Your task to perform on an android device: View the shopping cart on bestbuy. Search for acer predator on bestbuy, select the first entry, add it to the cart, then select checkout. Image 0: 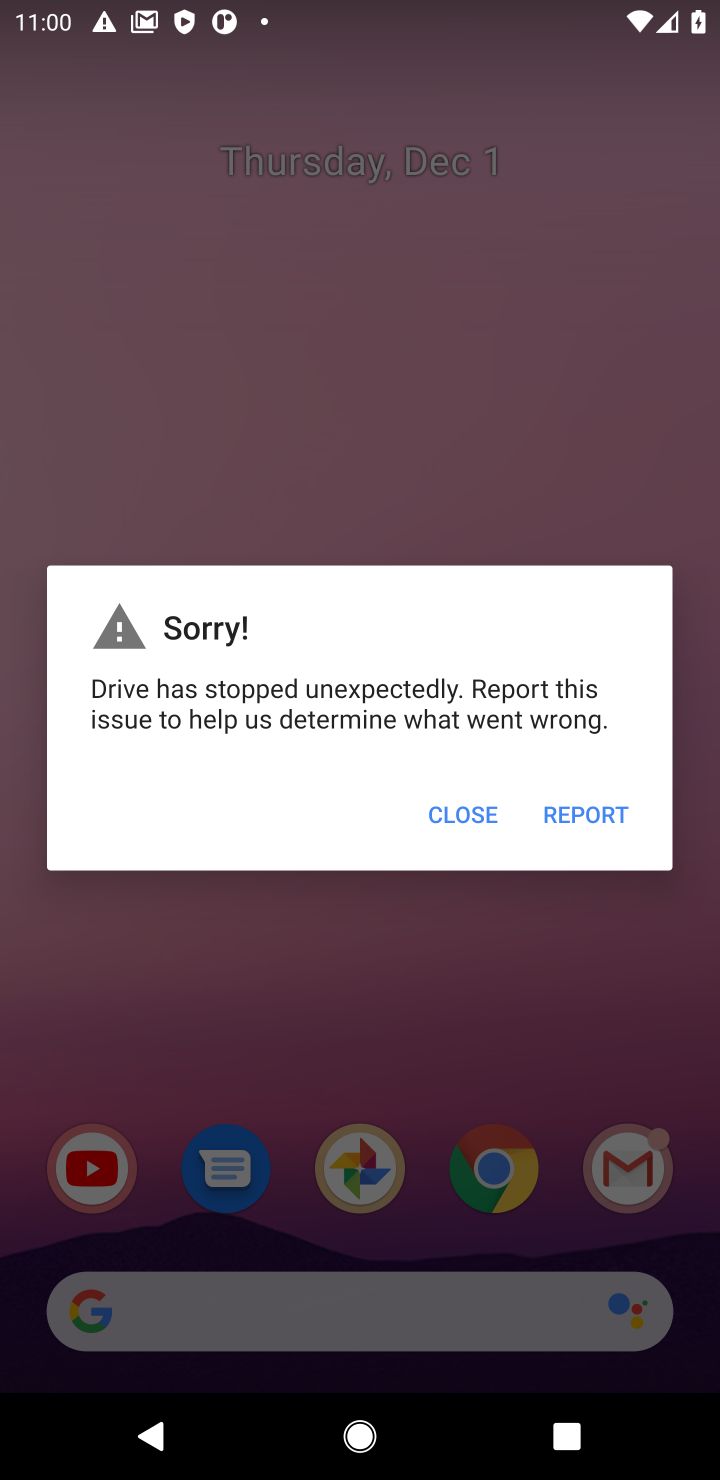
Step 0: press home button
Your task to perform on an android device: View the shopping cart on bestbuy. Search for acer predator on bestbuy, select the first entry, add it to the cart, then select checkout. Image 1: 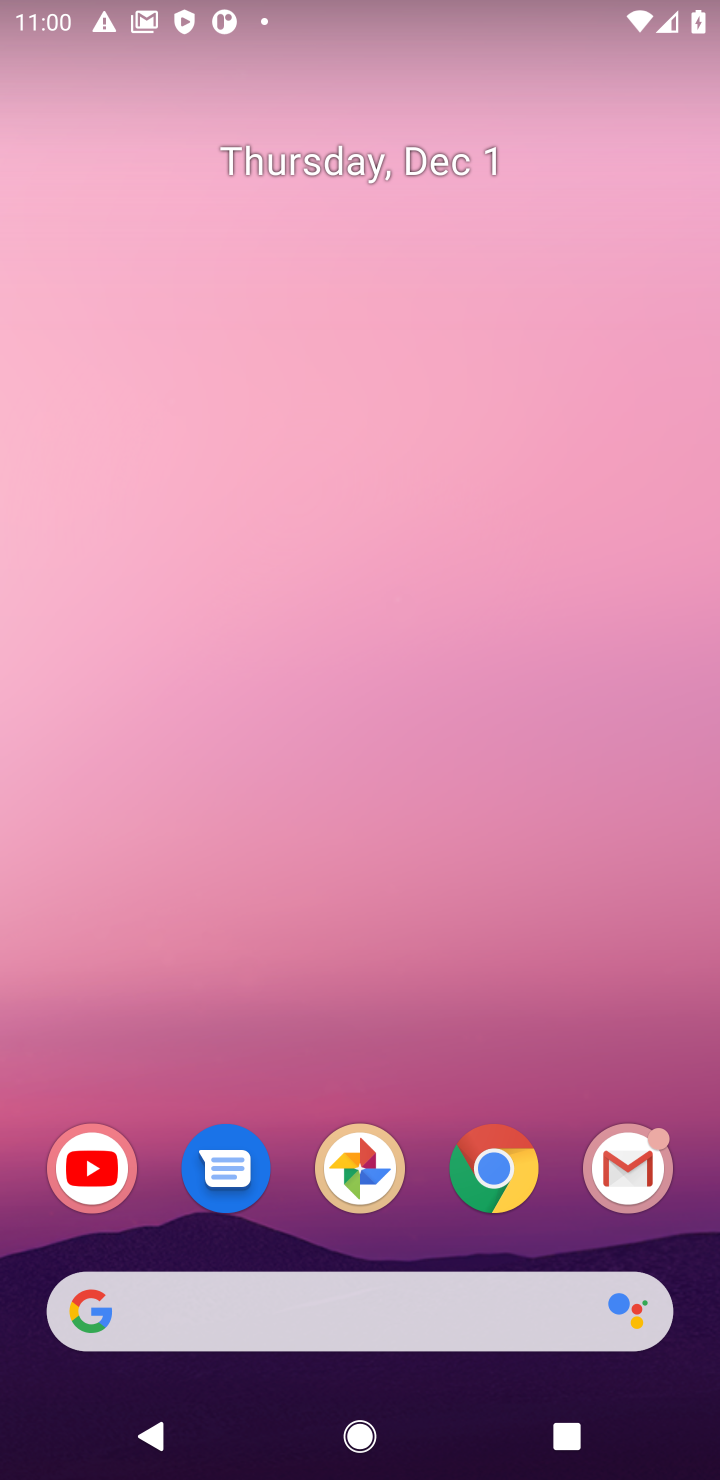
Step 1: click (503, 1186)
Your task to perform on an android device: View the shopping cart on bestbuy. Search for acer predator on bestbuy, select the first entry, add it to the cart, then select checkout. Image 2: 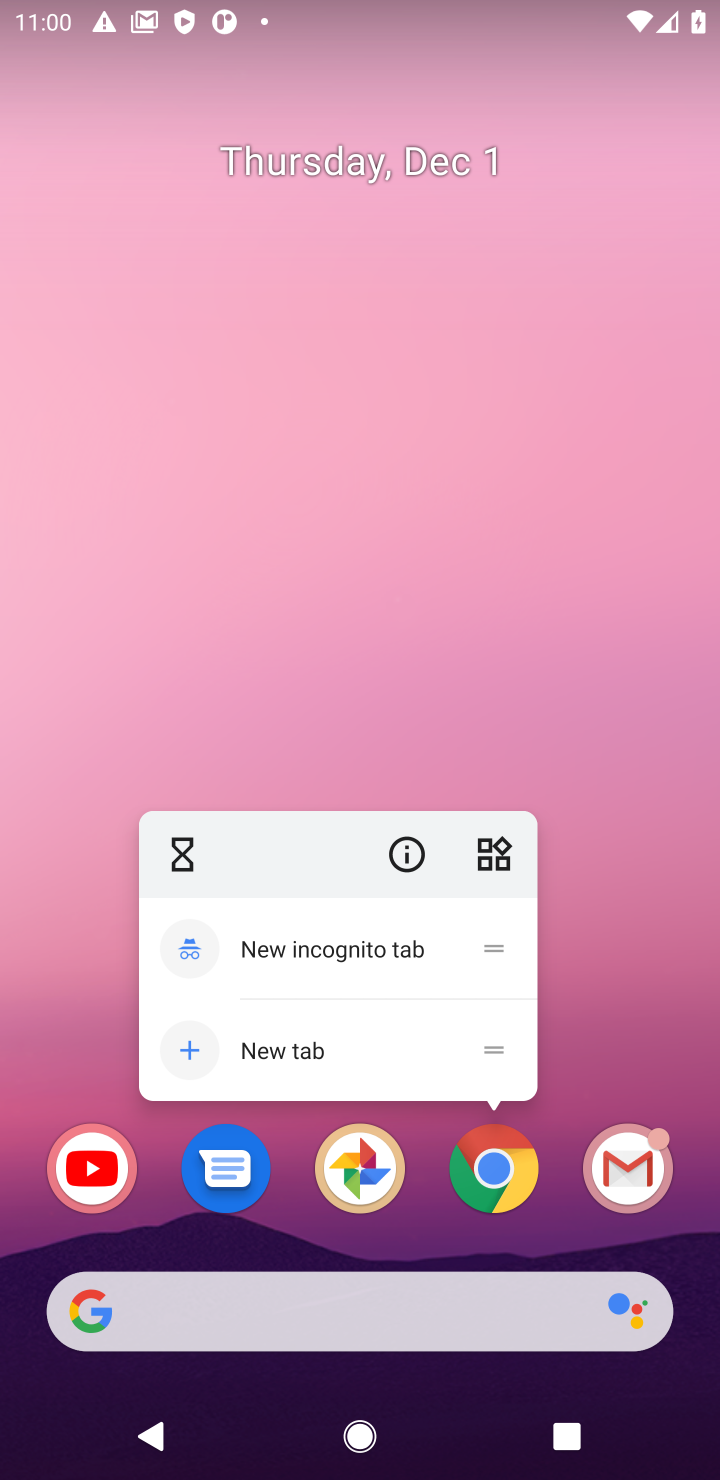
Step 2: click (503, 1186)
Your task to perform on an android device: View the shopping cart on bestbuy. Search for acer predator on bestbuy, select the first entry, add it to the cart, then select checkout. Image 3: 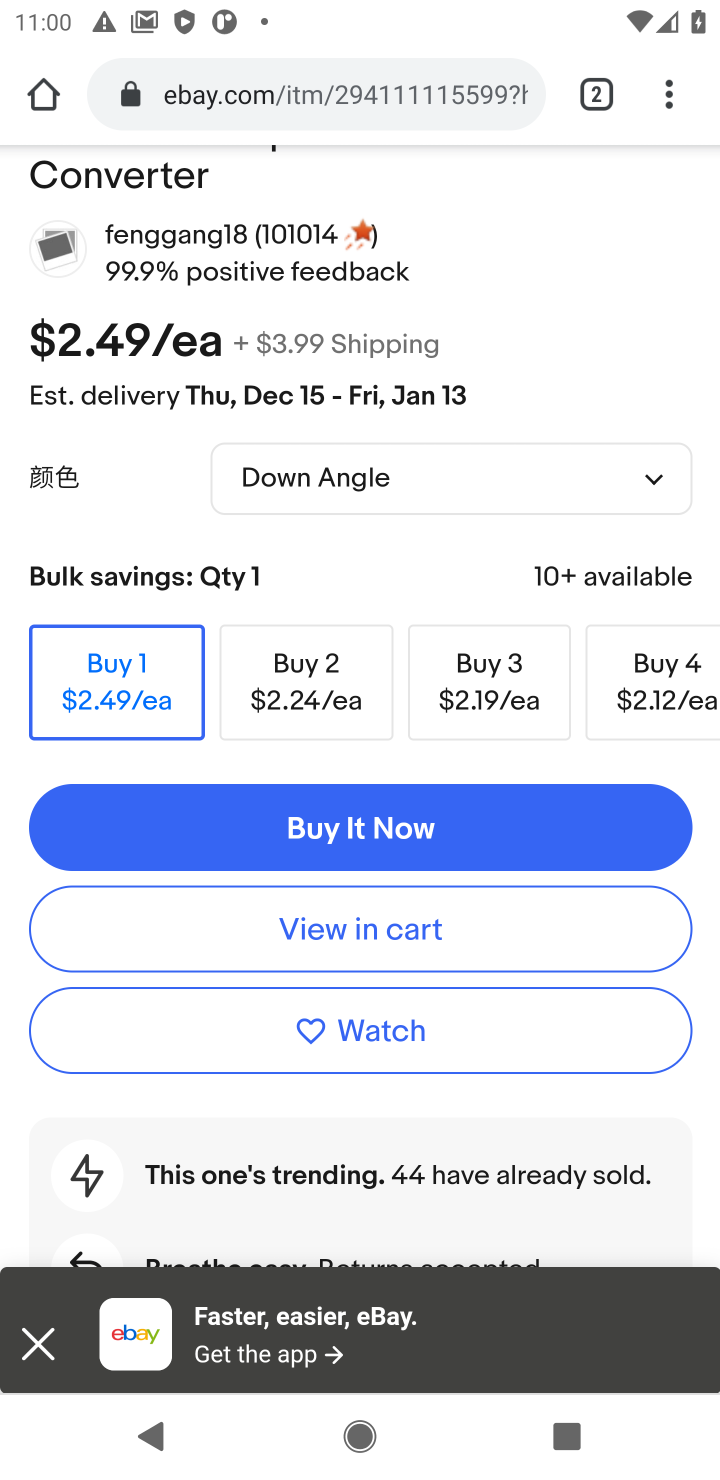
Step 3: click (276, 85)
Your task to perform on an android device: View the shopping cart on bestbuy. Search for acer predator on bestbuy, select the first entry, add it to the cart, then select checkout. Image 4: 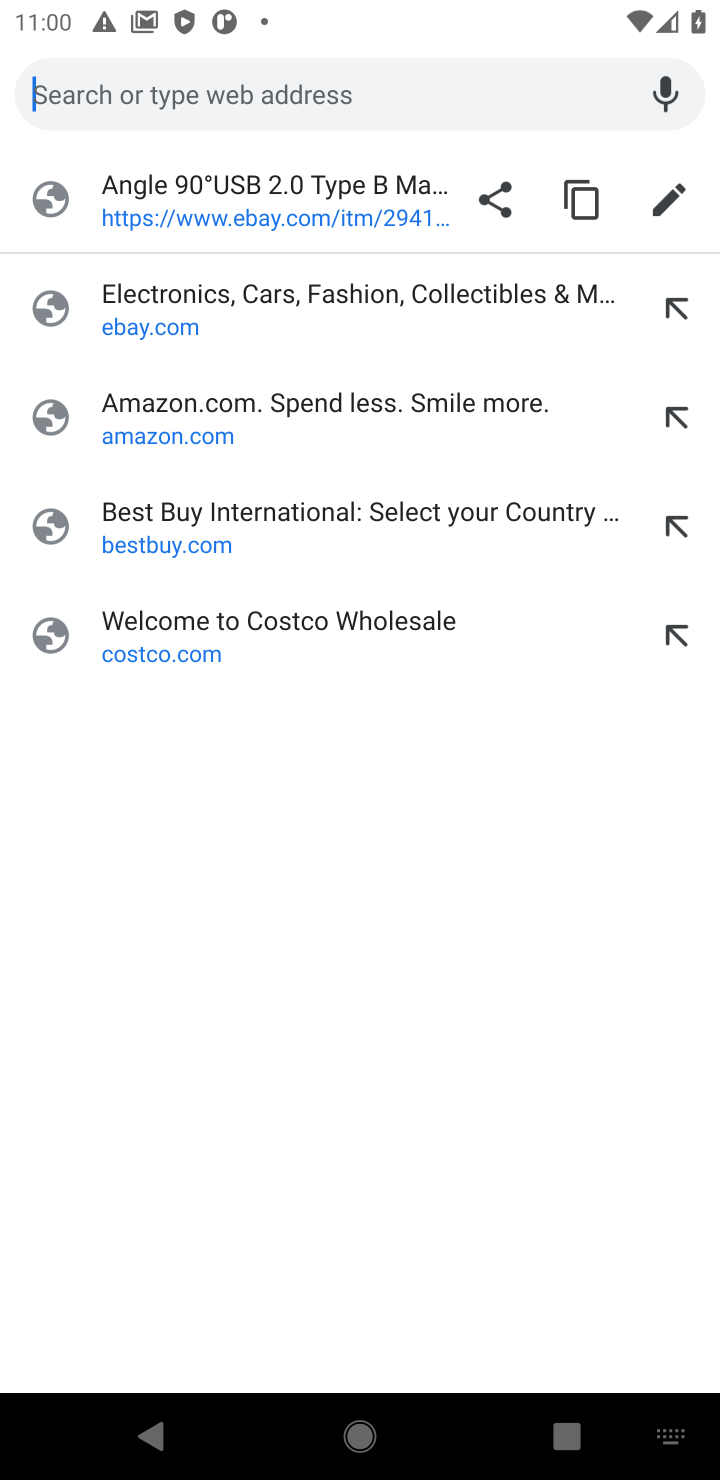
Step 4: click (134, 521)
Your task to perform on an android device: View the shopping cart on bestbuy. Search for acer predator on bestbuy, select the first entry, add it to the cart, then select checkout. Image 5: 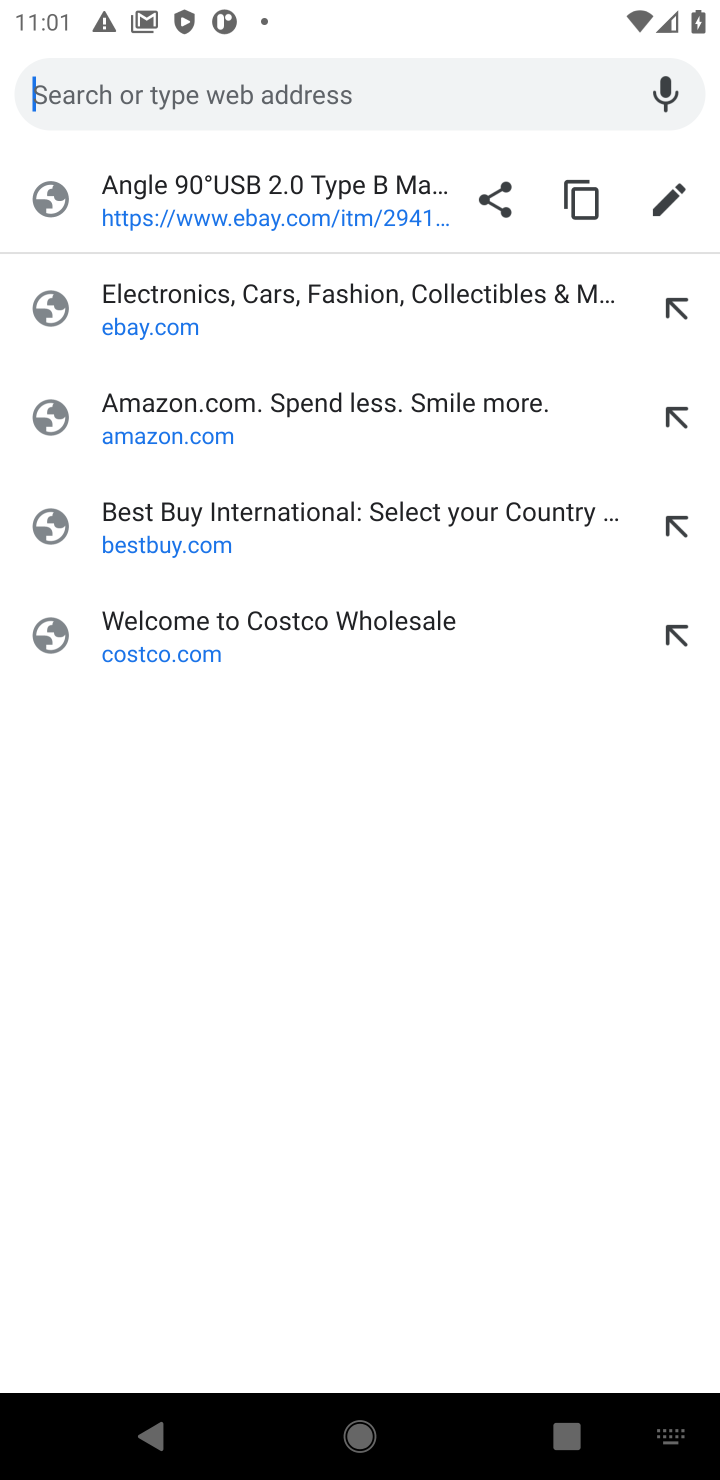
Step 5: click (159, 527)
Your task to perform on an android device: View the shopping cart on bestbuy. Search for acer predator on bestbuy, select the first entry, add it to the cart, then select checkout. Image 6: 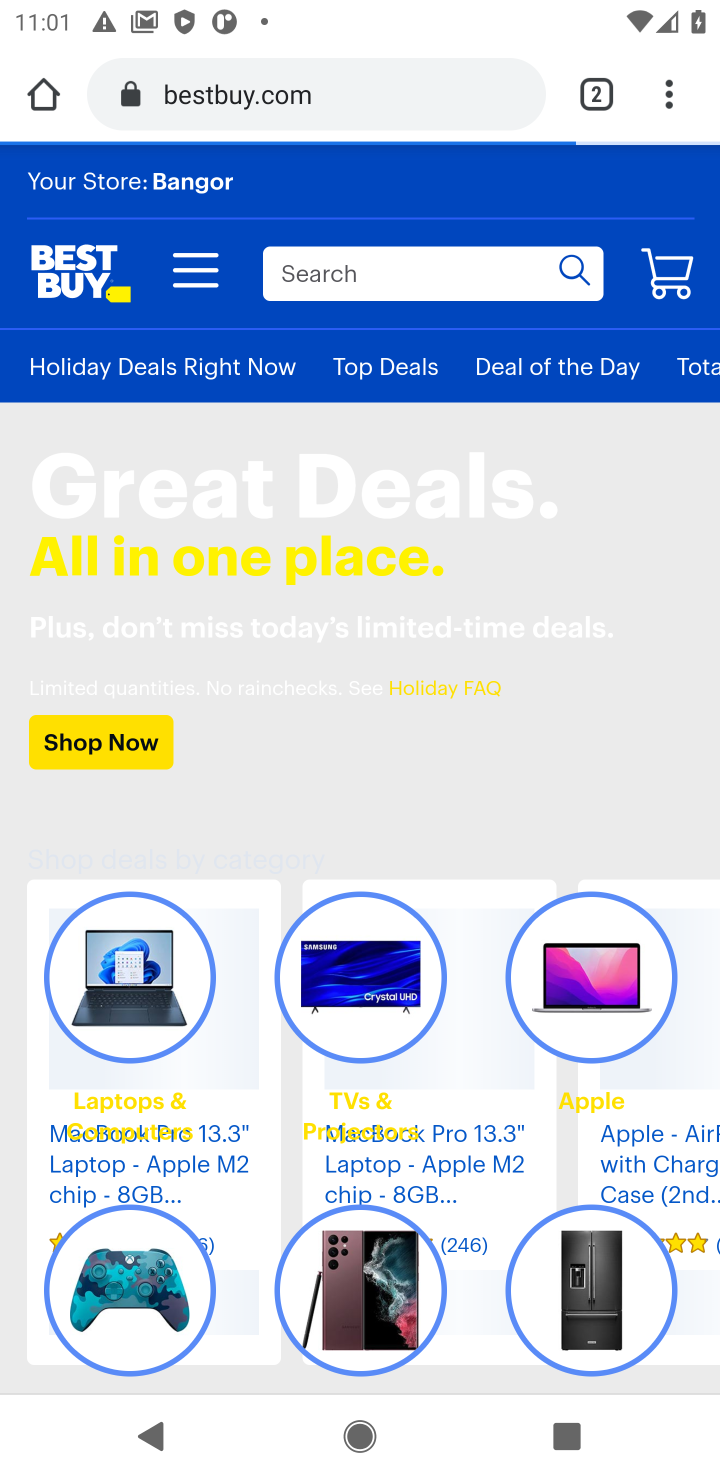
Step 6: click (674, 275)
Your task to perform on an android device: View the shopping cart on bestbuy. Search for acer predator on bestbuy, select the first entry, add it to the cart, then select checkout. Image 7: 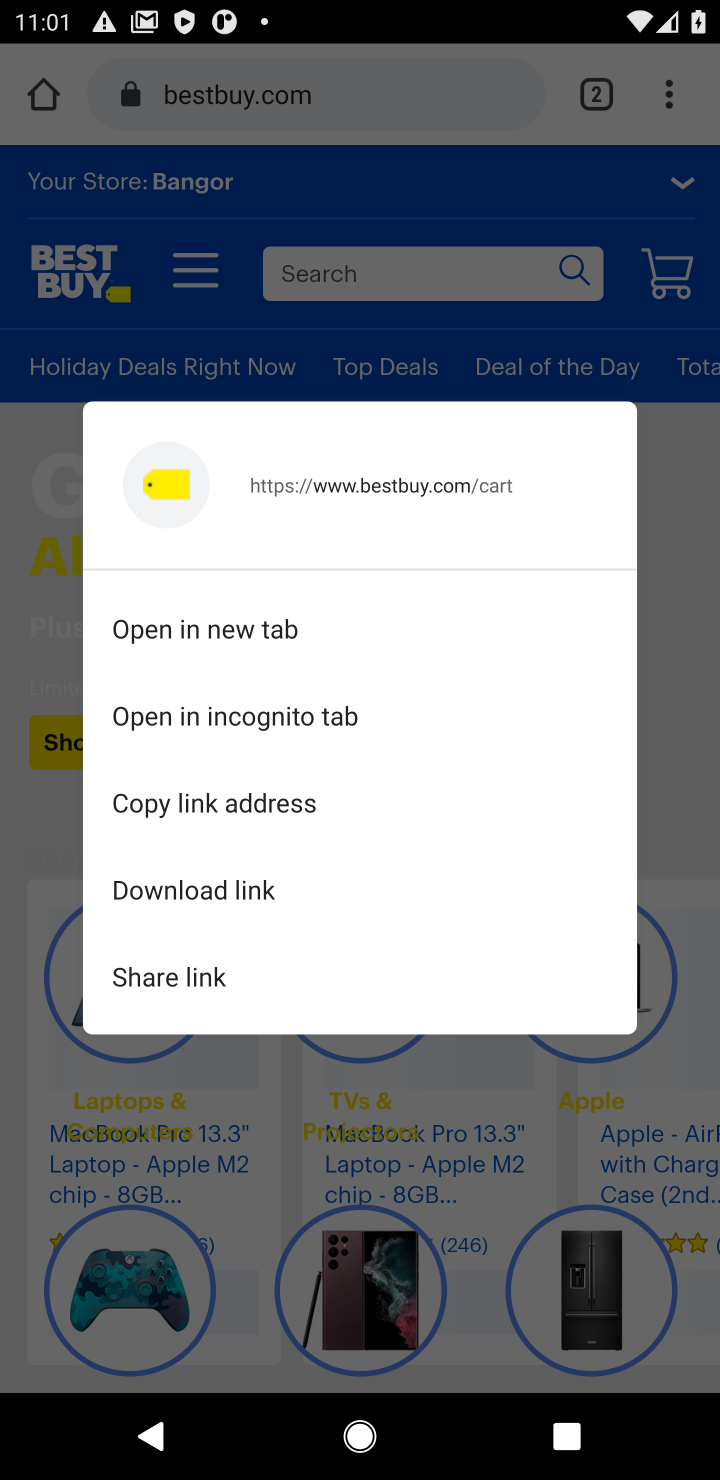
Step 7: click (665, 290)
Your task to perform on an android device: View the shopping cart on bestbuy. Search for acer predator on bestbuy, select the first entry, add it to the cart, then select checkout. Image 8: 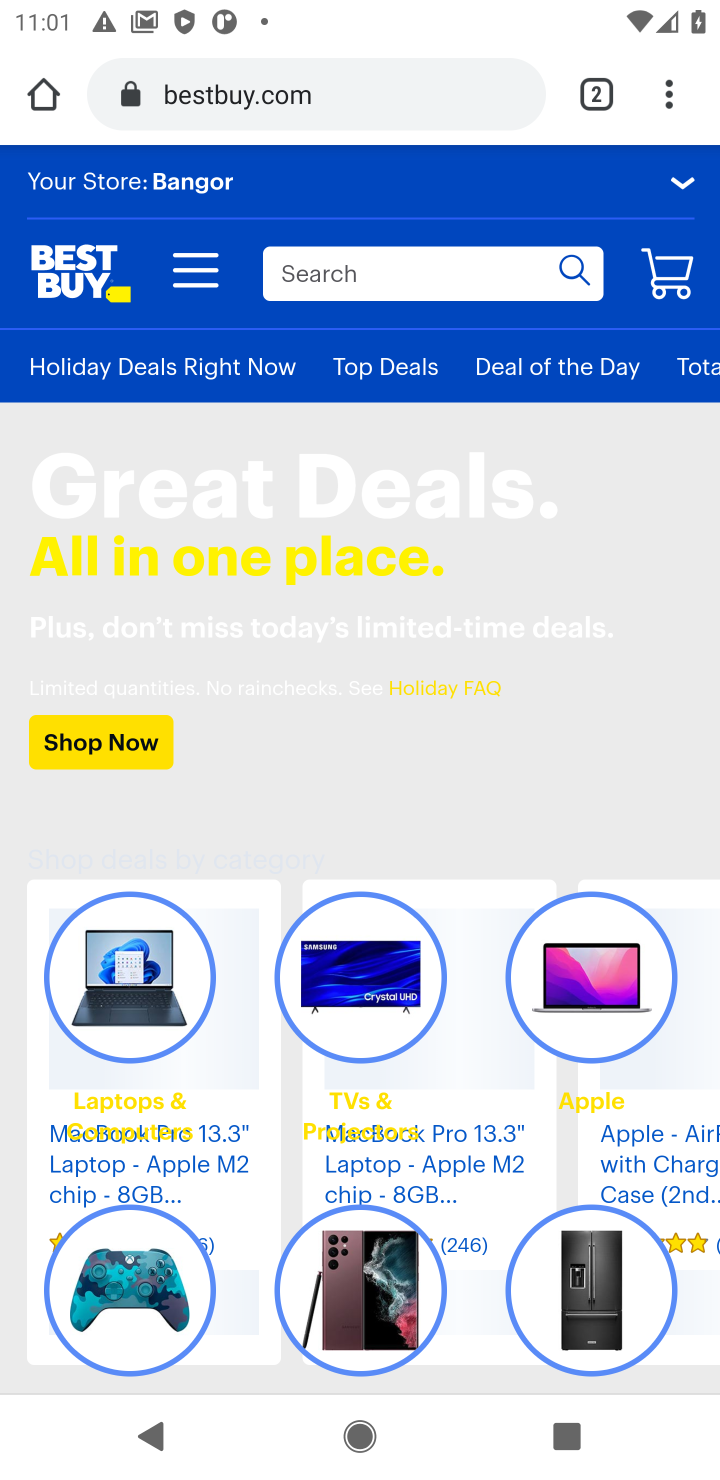
Step 8: click (677, 287)
Your task to perform on an android device: View the shopping cart on bestbuy. Search for acer predator on bestbuy, select the first entry, add it to the cart, then select checkout. Image 9: 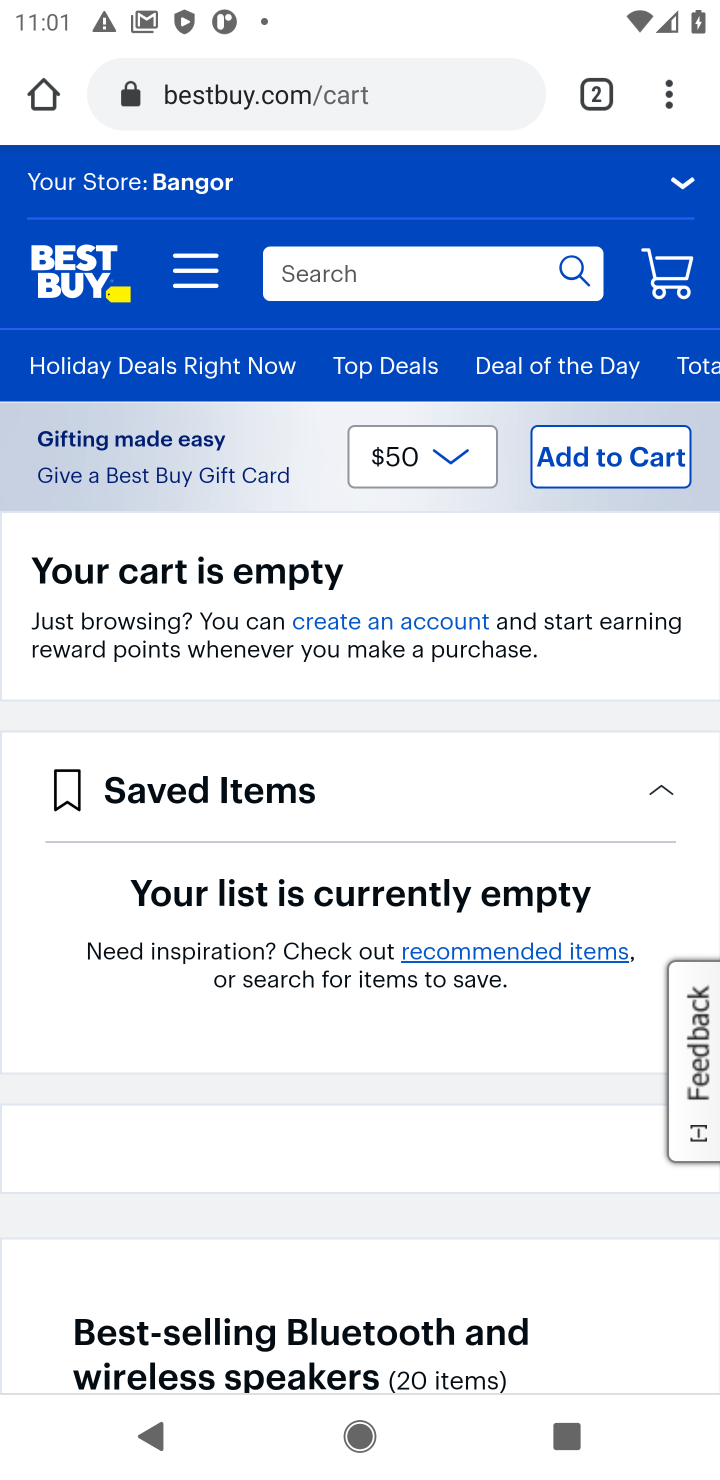
Step 9: click (357, 295)
Your task to perform on an android device: View the shopping cart on bestbuy. Search for acer predator on bestbuy, select the first entry, add it to the cart, then select checkout. Image 10: 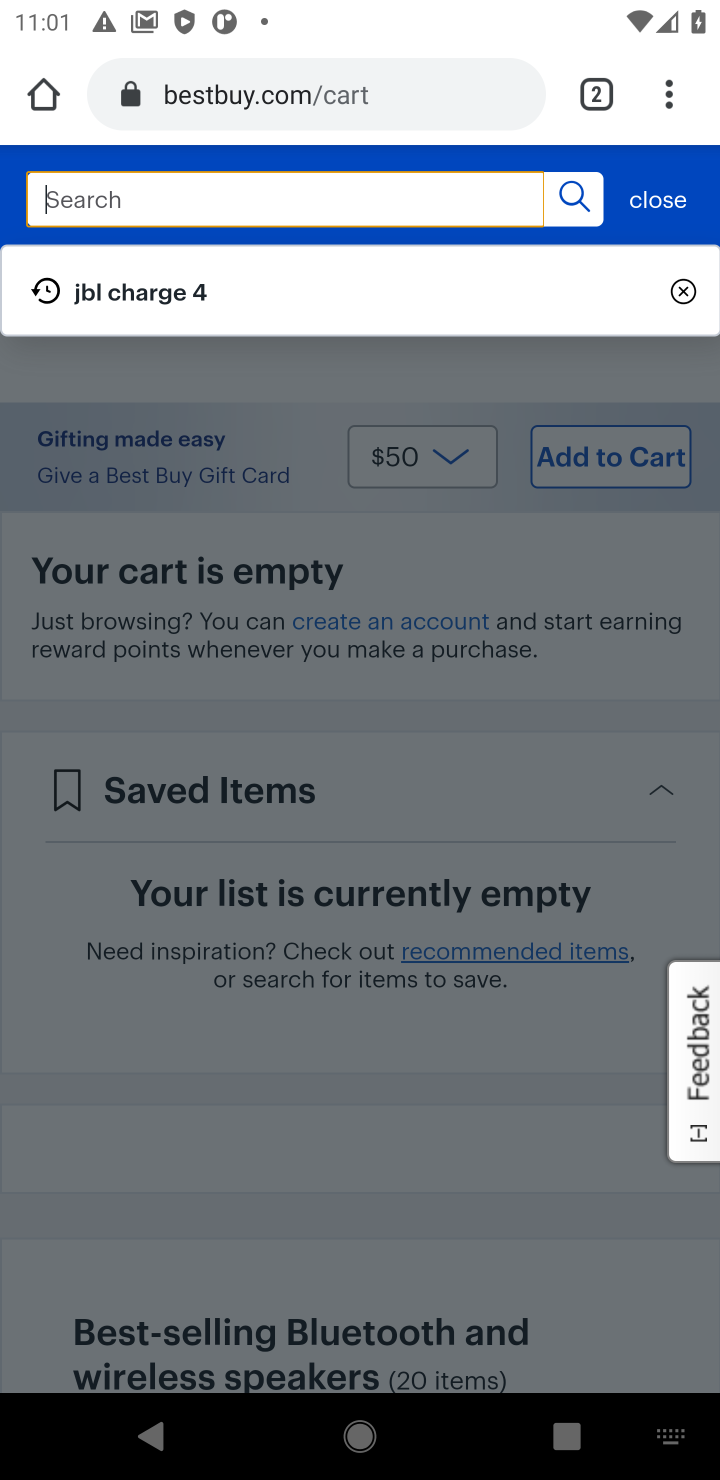
Step 10: type "acer predator"
Your task to perform on an android device: View the shopping cart on bestbuy. Search for acer predator on bestbuy, select the first entry, add it to the cart, then select checkout. Image 11: 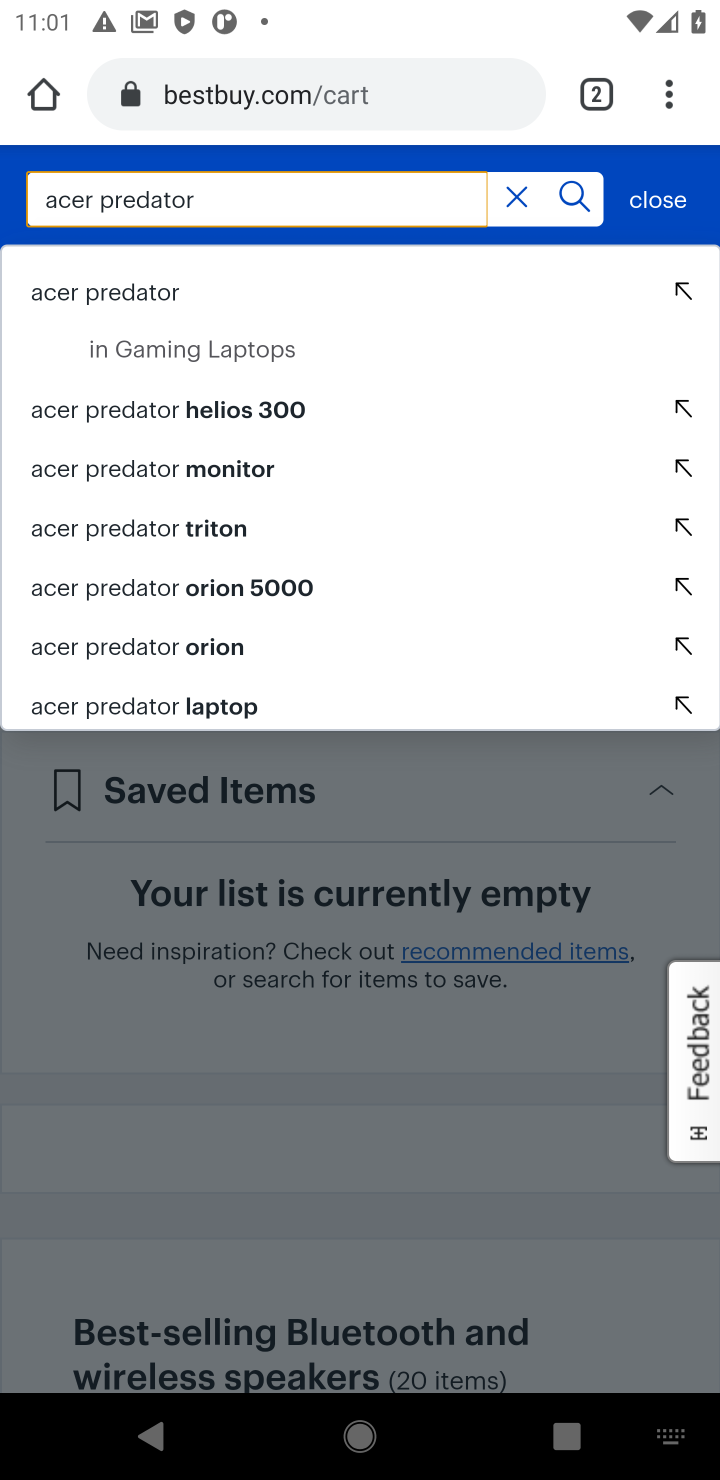
Step 11: click (168, 299)
Your task to perform on an android device: View the shopping cart on bestbuy. Search for acer predator on bestbuy, select the first entry, add it to the cart, then select checkout. Image 12: 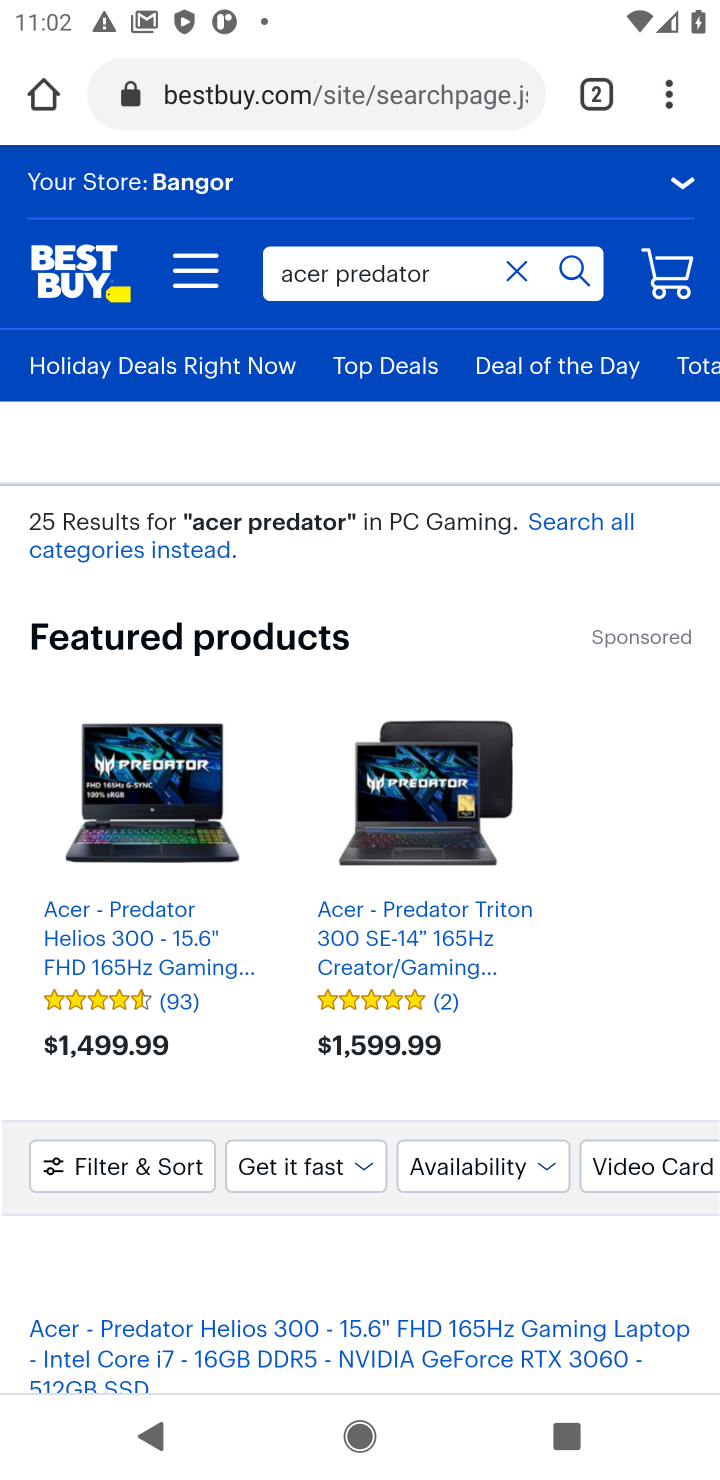
Step 12: drag from (547, 963) to (536, 271)
Your task to perform on an android device: View the shopping cart on bestbuy. Search for acer predator on bestbuy, select the first entry, add it to the cart, then select checkout. Image 13: 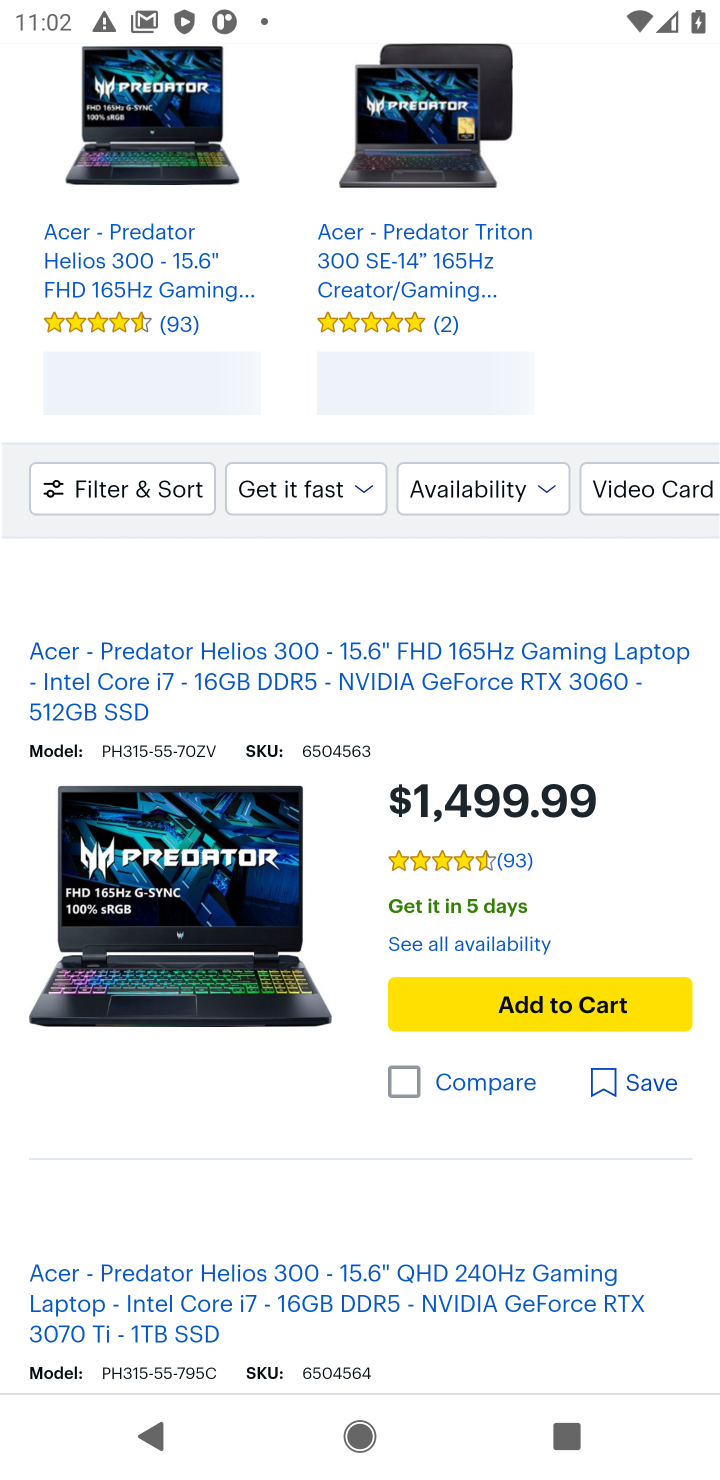
Step 13: click (514, 1007)
Your task to perform on an android device: View the shopping cart on bestbuy. Search for acer predator on bestbuy, select the first entry, add it to the cart, then select checkout. Image 14: 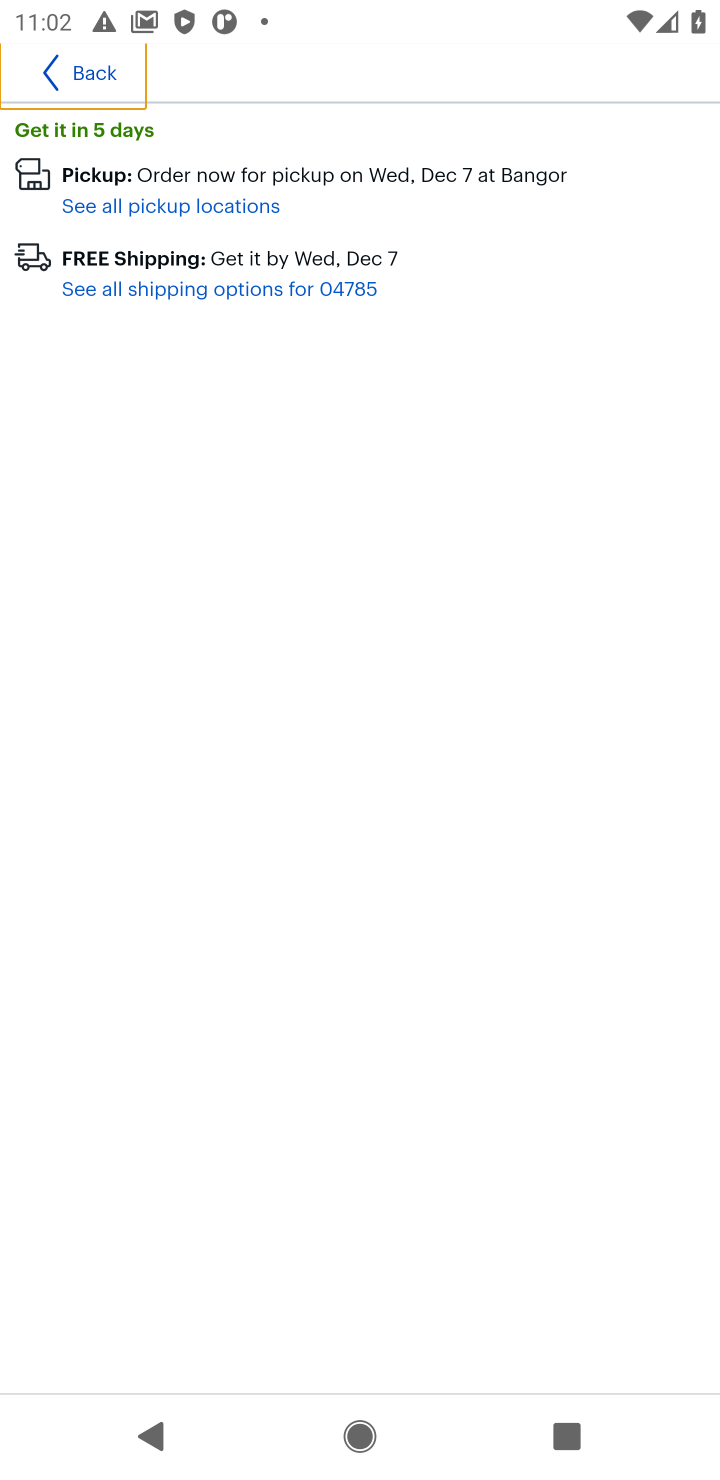
Step 14: click (94, 75)
Your task to perform on an android device: View the shopping cart on bestbuy. Search for acer predator on bestbuy, select the first entry, add it to the cart, then select checkout. Image 15: 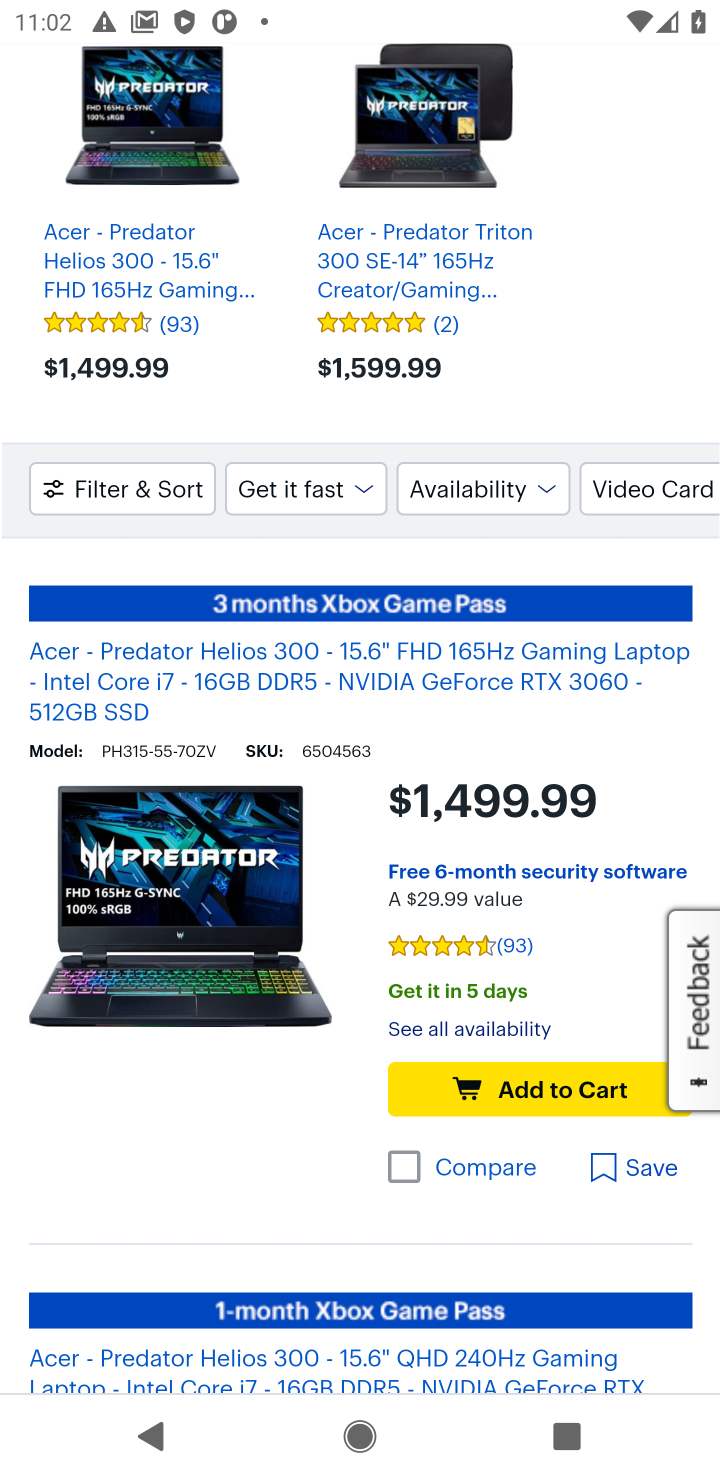
Step 15: click (492, 1090)
Your task to perform on an android device: View the shopping cart on bestbuy. Search for acer predator on bestbuy, select the first entry, add it to the cart, then select checkout. Image 16: 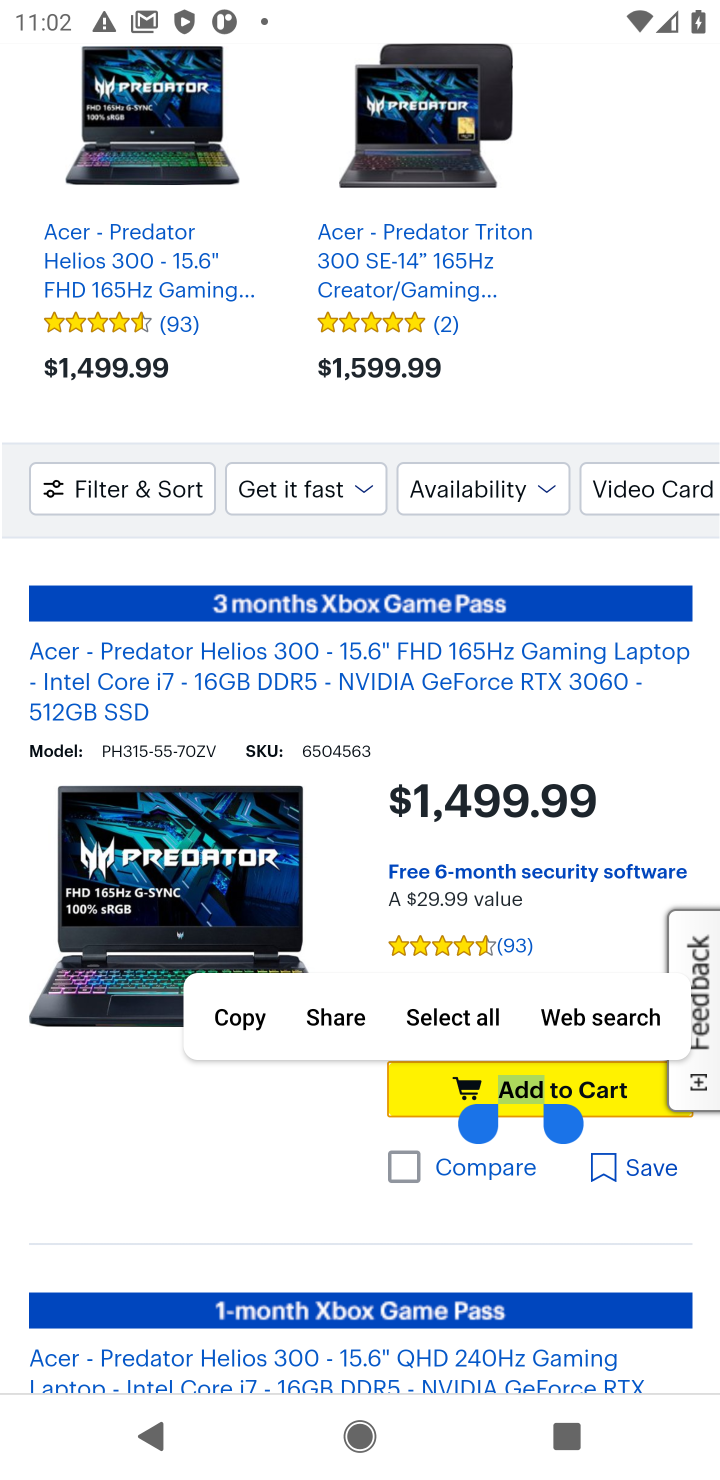
Step 16: click (558, 1090)
Your task to perform on an android device: View the shopping cart on bestbuy. Search for acer predator on bestbuy, select the first entry, add it to the cart, then select checkout. Image 17: 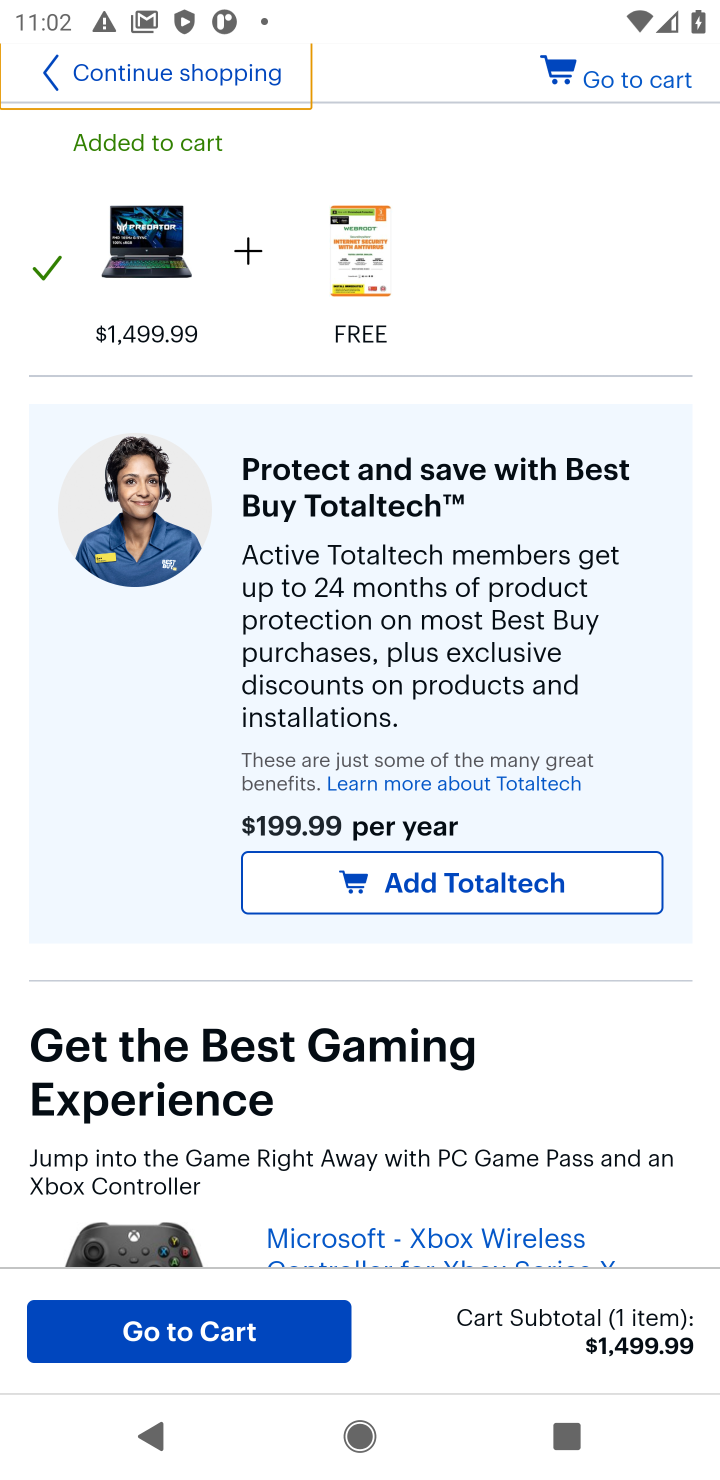
Step 17: click (623, 81)
Your task to perform on an android device: View the shopping cart on bestbuy. Search for acer predator on bestbuy, select the first entry, add it to the cart, then select checkout. Image 18: 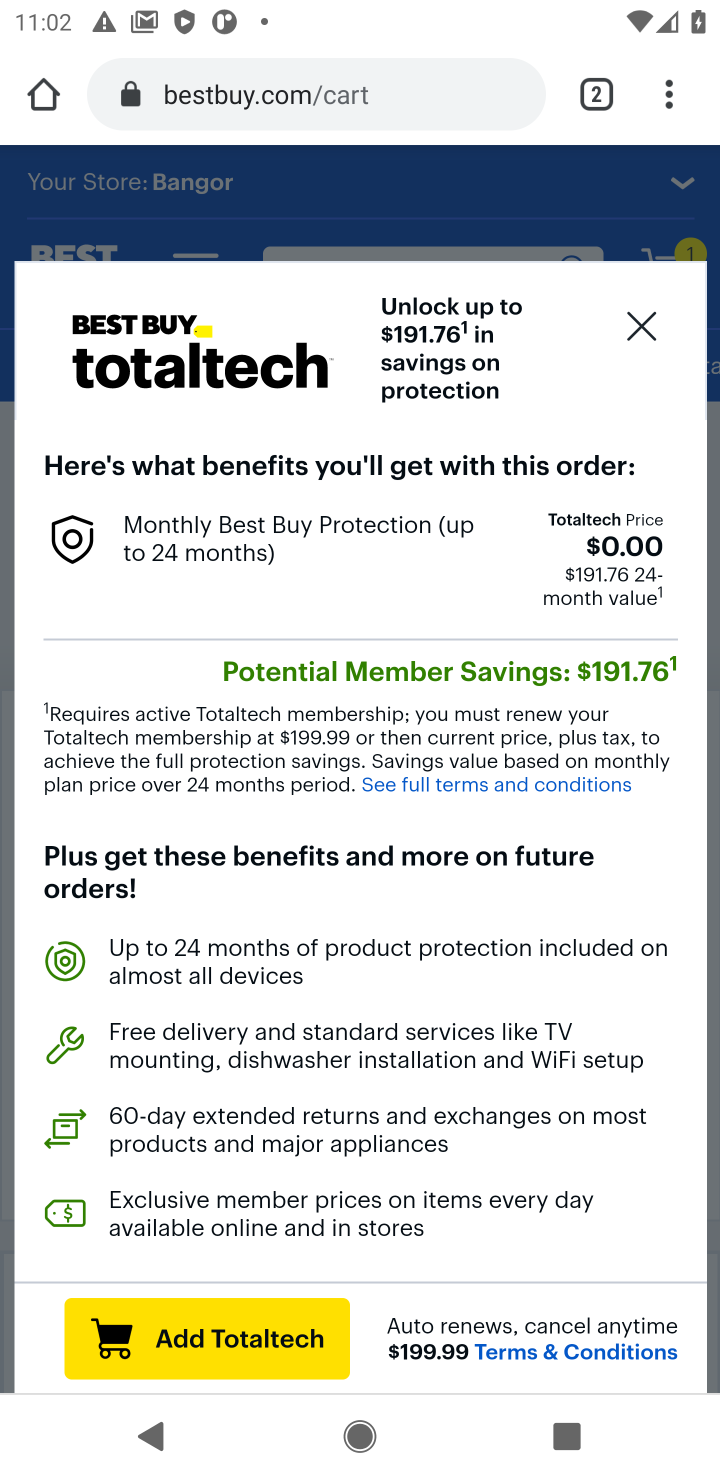
Step 18: click (648, 324)
Your task to perform on an android device: View the shopping cart on bestbuy. Search for acer predator on bestbuy, select the first entry, add it to the cart, then select checkout. Image 19: 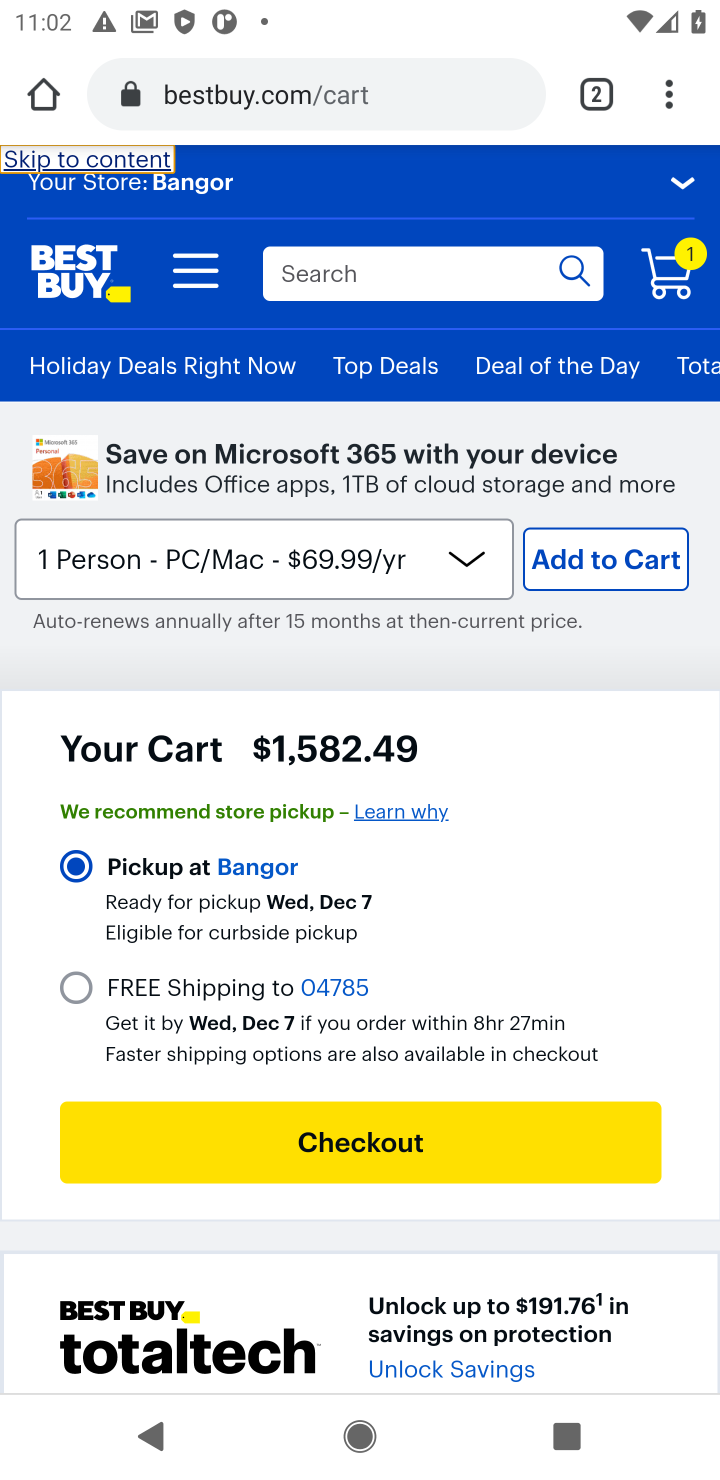
Step 19: click (334, 1139)
Your task to perform on an android device: View the shopping cart on bestbuy. Search for acer predator on bestbuy, select the first entry, add it to the cart, then select checkout. Image 20: 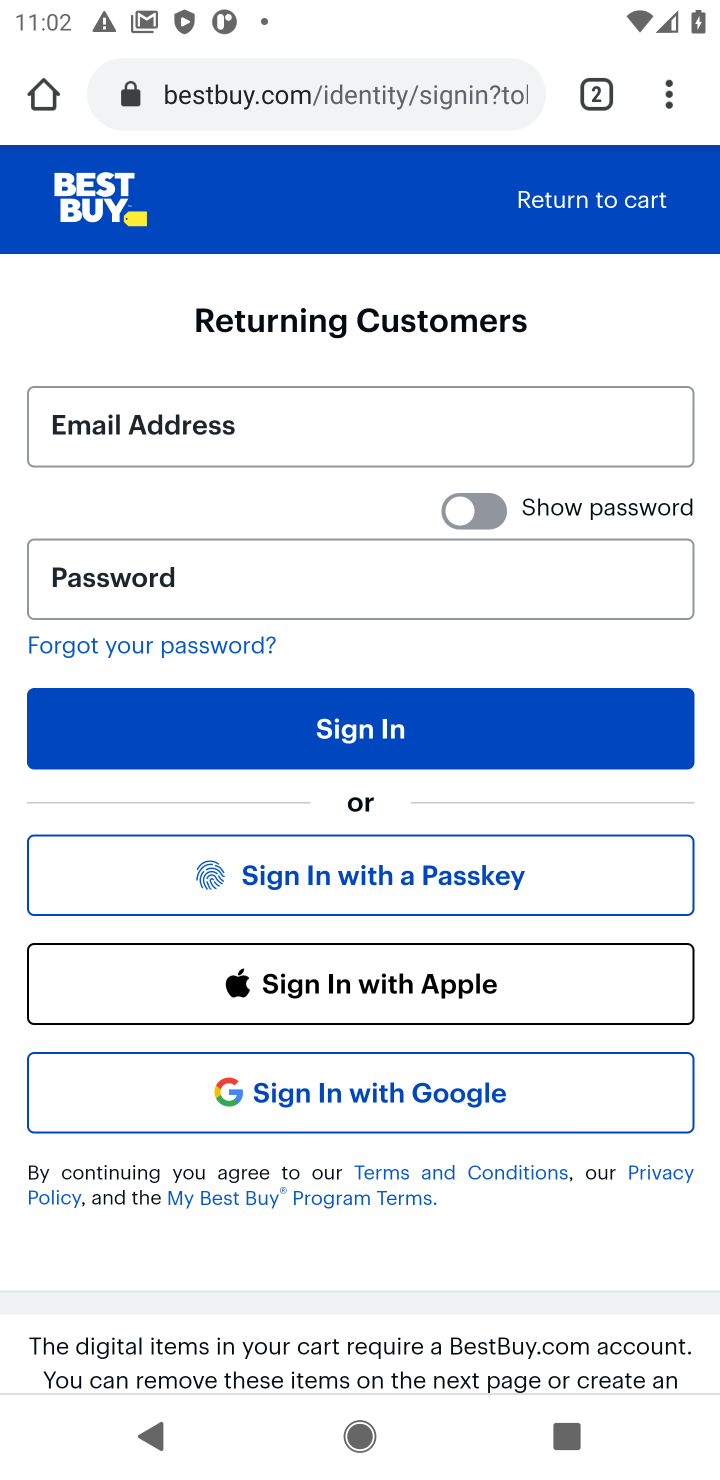
Step 20: task complete